Your task to perform on an android device: change the upload size in google photos Image 0: 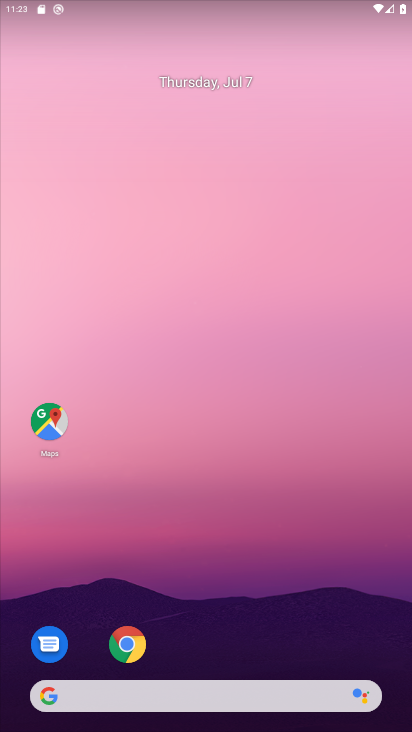
Step 0: drag from (83, 596) to (390, 32)
Your task to perform on an android device: change the upload size in google photos Image 1: 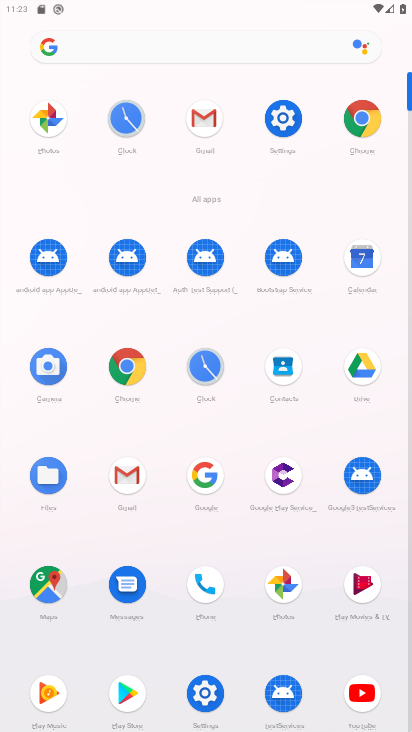
Step 1: click (275, 578)
Your task to perform on an android device: change the upload size in google photos Image 2: 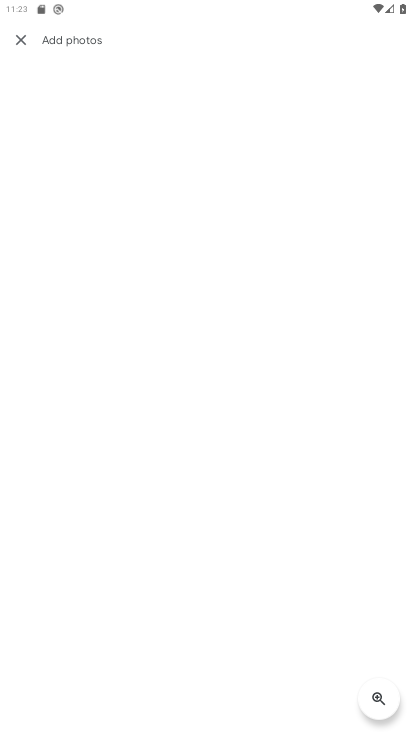
Step 2: click (20, 38)
Your task to perform on an android device: change the upload size in google photos Image 3: 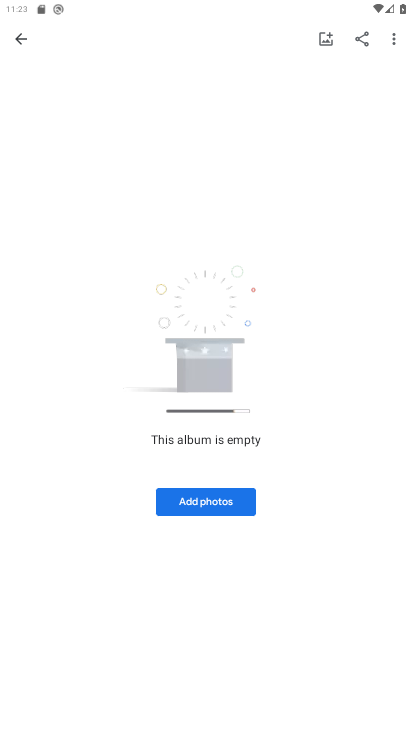
Step 3: click (14, 42)
Your task to perform on an android device: change the upload size in google photos Image 4: 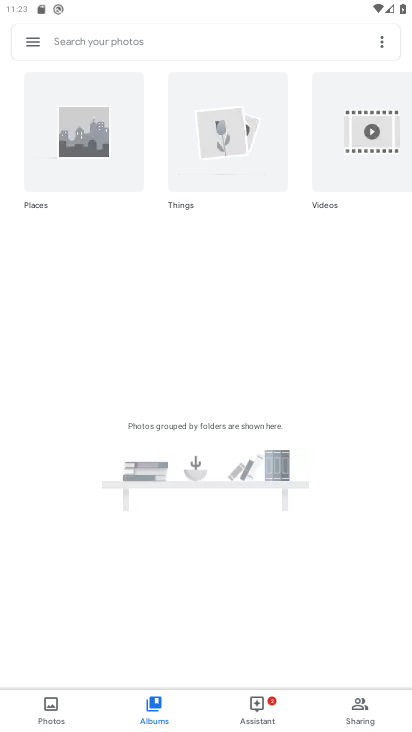
Step 4: click (23, 26)
Your task to perform on an android device: change the upload size in google photos Image 5: 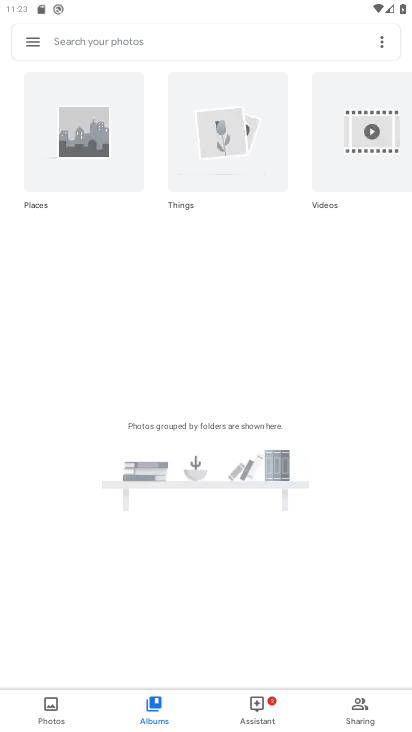
Step 5: click (27, 45)
Your task to perform on an android device: change the upload size in google photos Image 6: 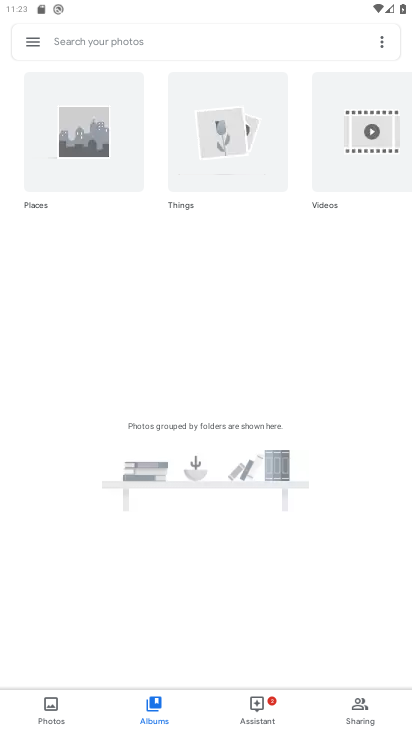
Step 6: click (32, 40)
Your task to perform on an android device: change the upload size in google photos Image 7: 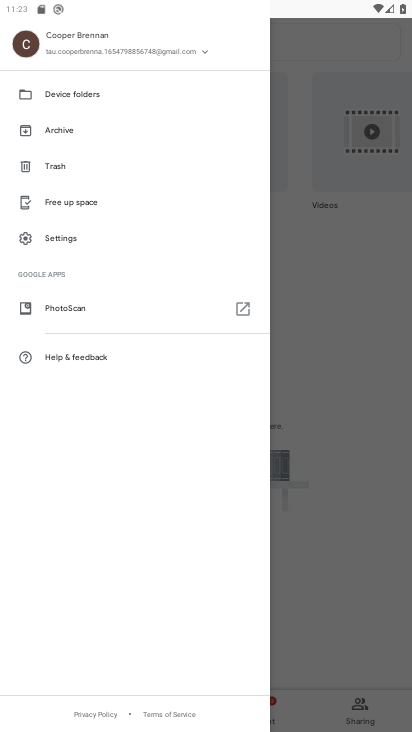
Step 7: click (335, 285)
Your task to perform on an android device: change the upload size in google photos Image 8: 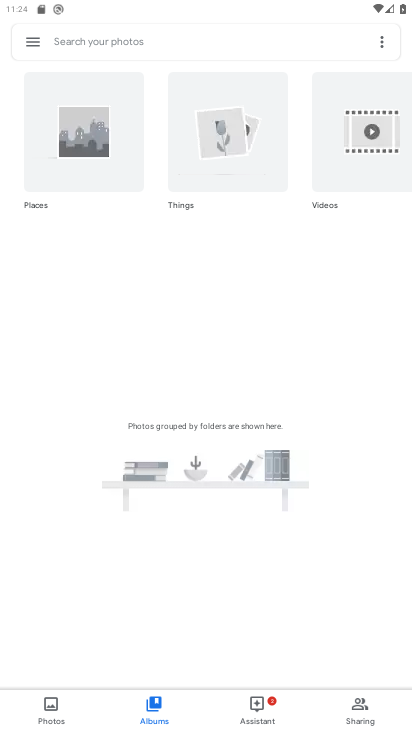
Step 8: click (371, 717)
Your task to perform on an android device: change the upload size in google photos Image 9: 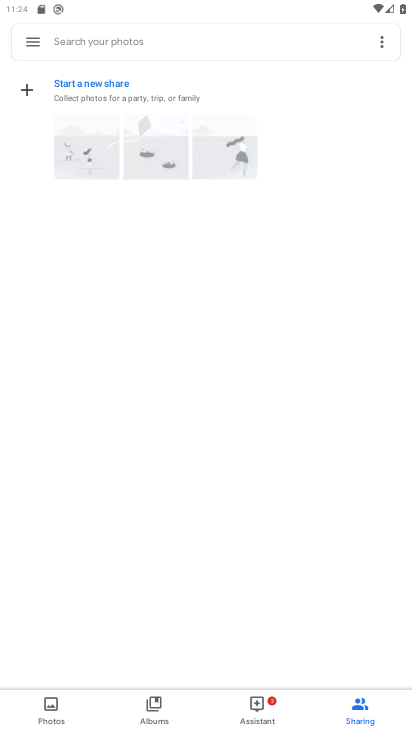
Step 9: click (385, 37)
Your task to perform on an android device: change the upload size in google photos Image 10: 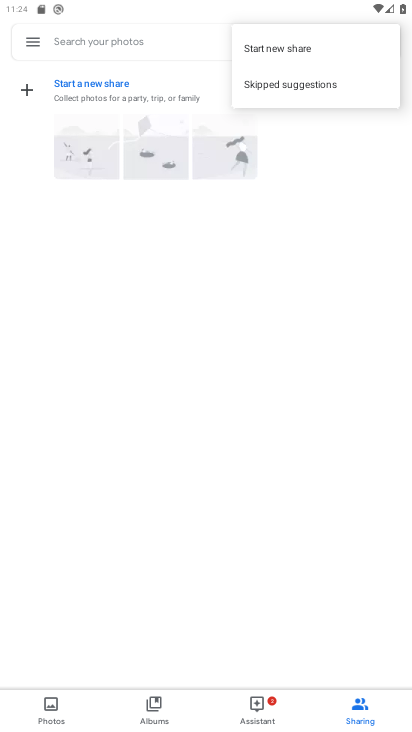
Step 10: task complete